Your task to perform on an android device: Go to Yahoo.com Image 0: 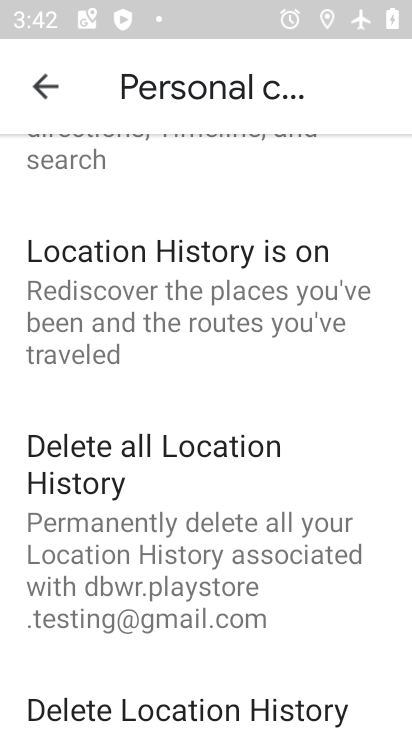
Step 0: press home button
Your task to perform on an android device: Go to Yahoo.com Image 1: 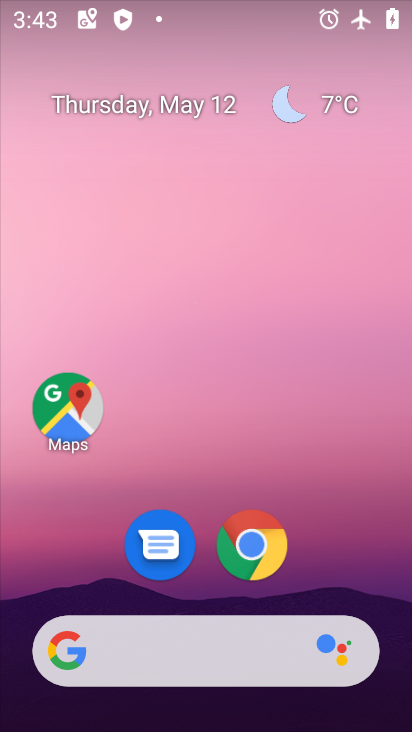
Step 1: click (255, 546)
Your task to perform on an android device: Go to Yahoo.com Image 2: 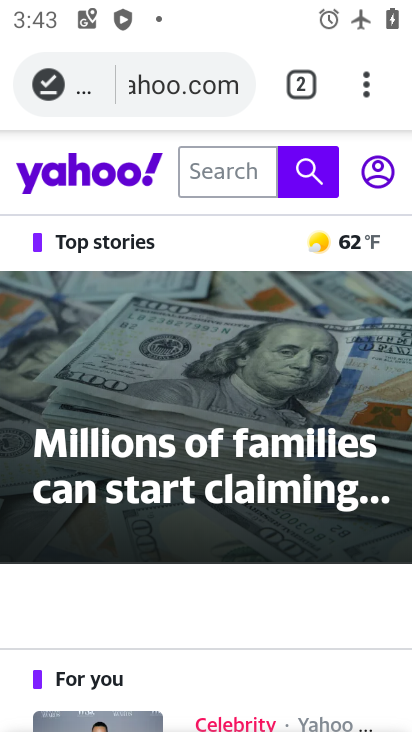
Step 2: task complete